Your task to perform on an android device: move an email to a new category in the gmail app Image 0: 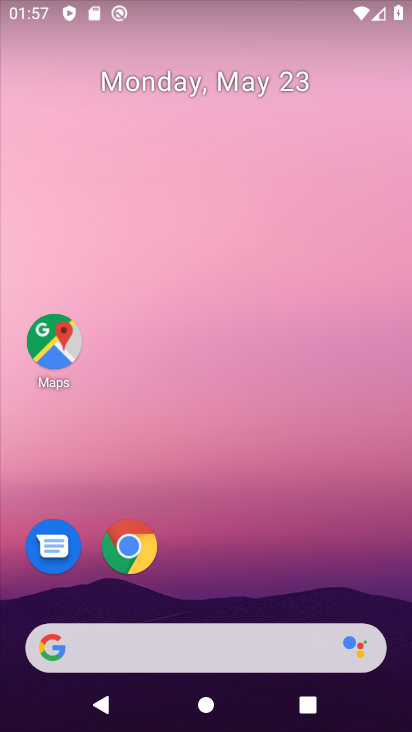
Step 0: drag from (207, 583) to (270, 122)
Your task to perform on an android device: move an email to a new category in the gmail app Image 1: 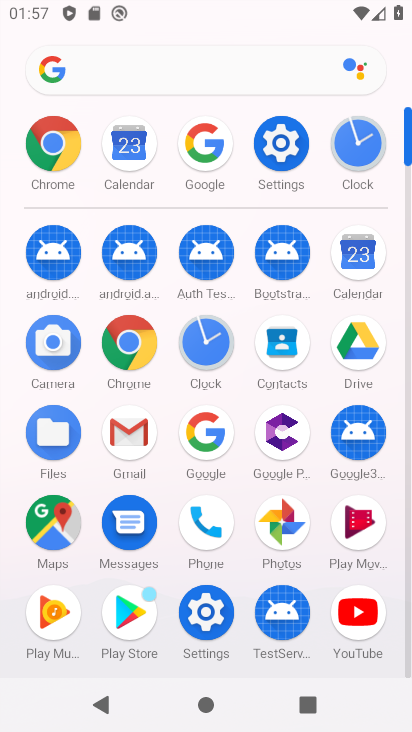
Step 1: click (140, 419)
Your task to perform on an android device: move an email to a new category in the gmail app Image 2: 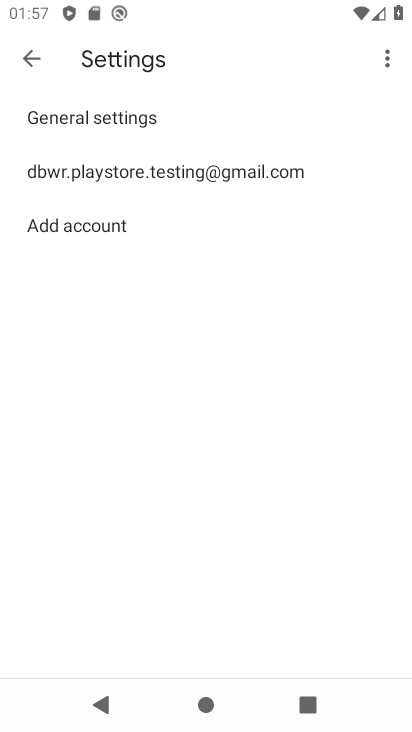
Step 2: click (39, 47)
Your task to perform on an android device: move an email to a new category in the gmail app Image 3: 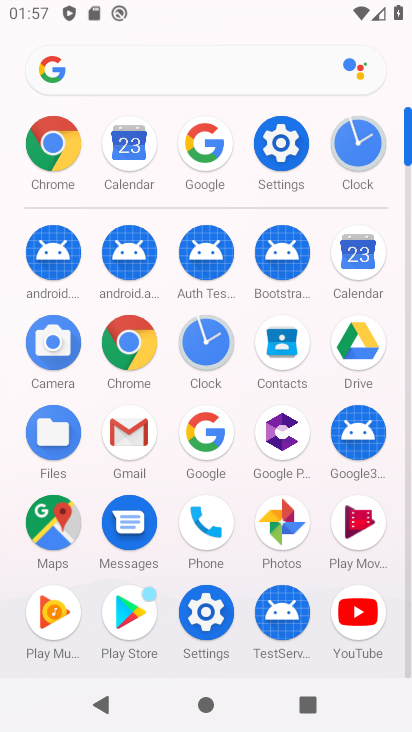
Step 3: click (126, 431)
Your task to perform on an android device: move an email to a new category in the gmail app Image 4: 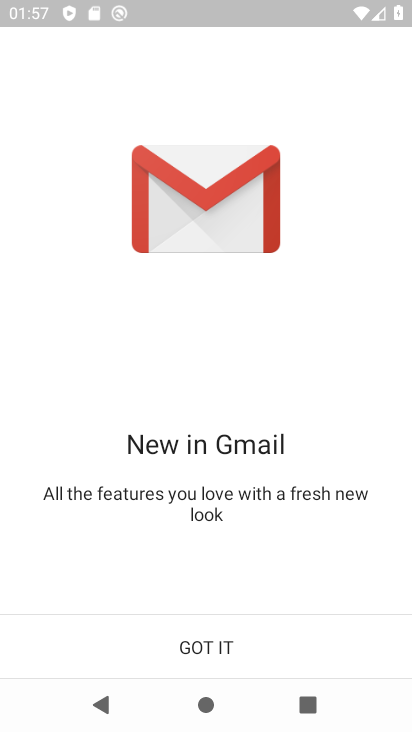
Step 4: click (217, 652)
Your task to perform on an android device: move an email to a new category in the gmail app Image 5: 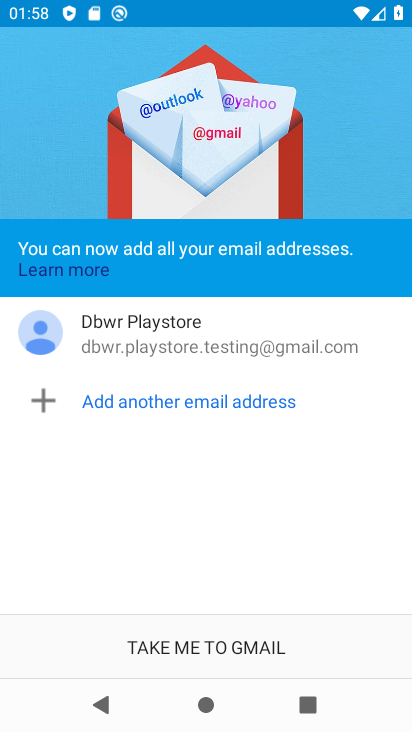
Step 5: click (216, 637)
Your task to perform on an android device: move an email to a new category in the gmail app Image 6: 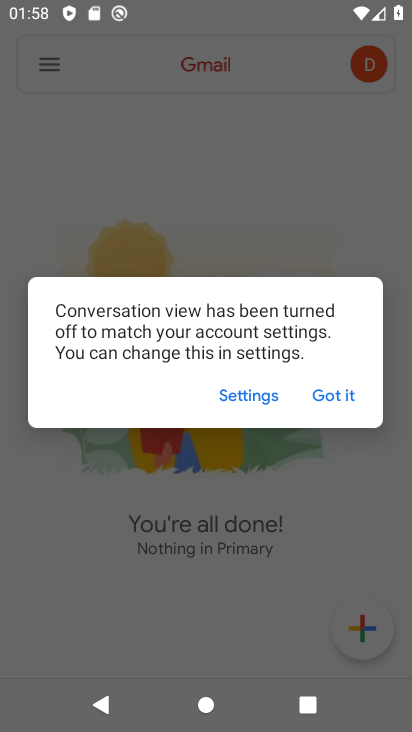
Step 6: click (339, 380)
Your task to perform on an android device: move an email to a new category in the gmail app Image 7: 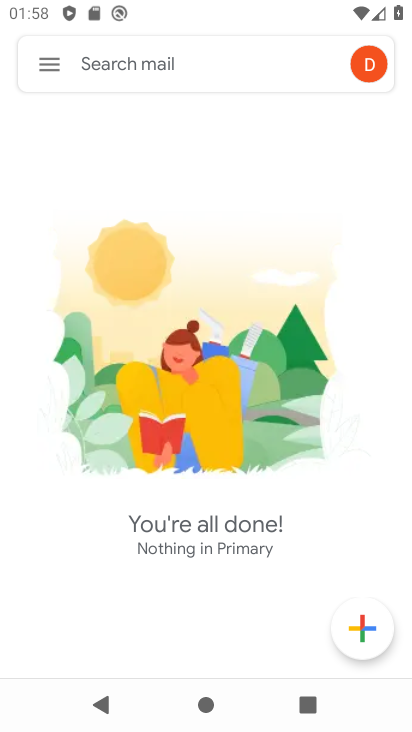
Step 7: click (45, 59)
Your task to perform on an android device: move an email to a new category in the gmail app Image 8: 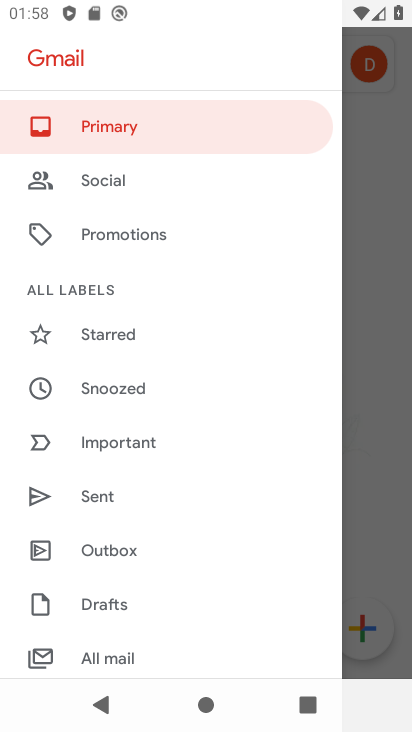
Step 8: click (107, 657)
Your task to perform on an android device: move an email to a new category in the gmail app Image 9: 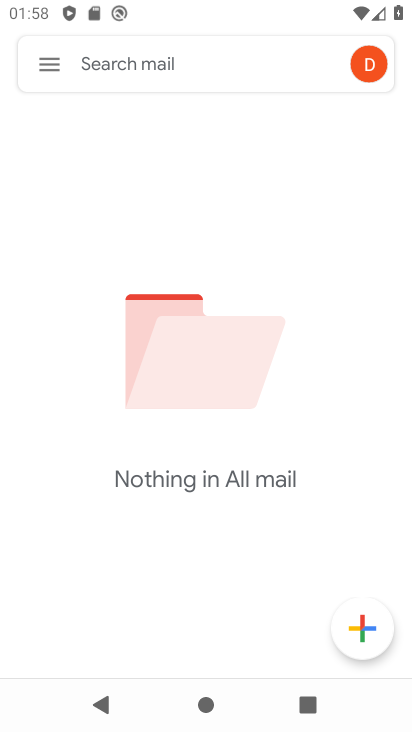
Step 9: task complete